Your task to perform on an android device: Search for sushi restaurants on Maps Image 0: 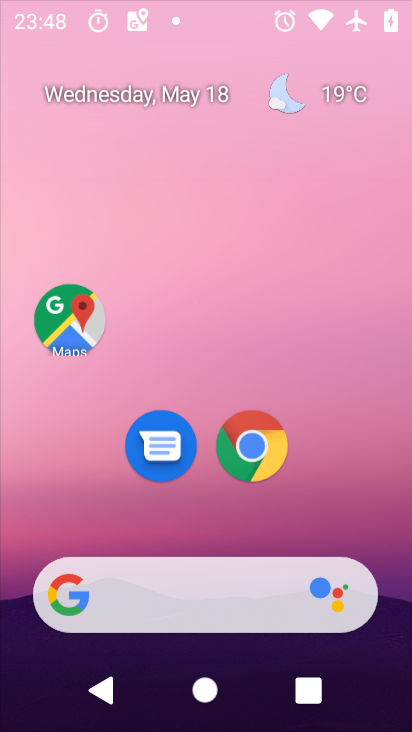
Step 0: press home button
Your task to perform on an android device: Search for sushi restaurants on Maps Image 1: 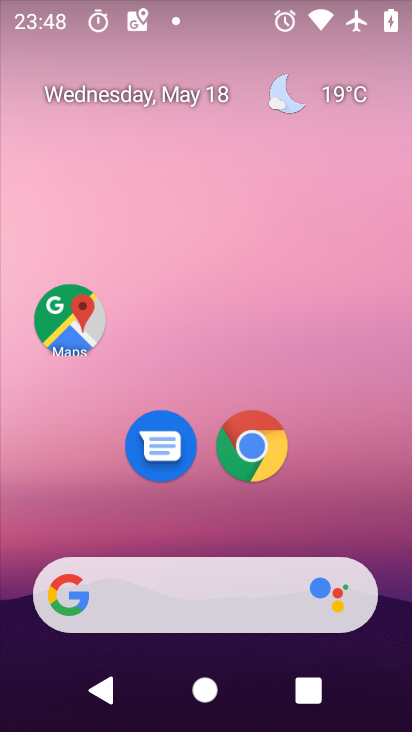
Step 1: click (82, 323)
Your task to perform on an android device: Search for sushi restaurants on Maps Image 2: 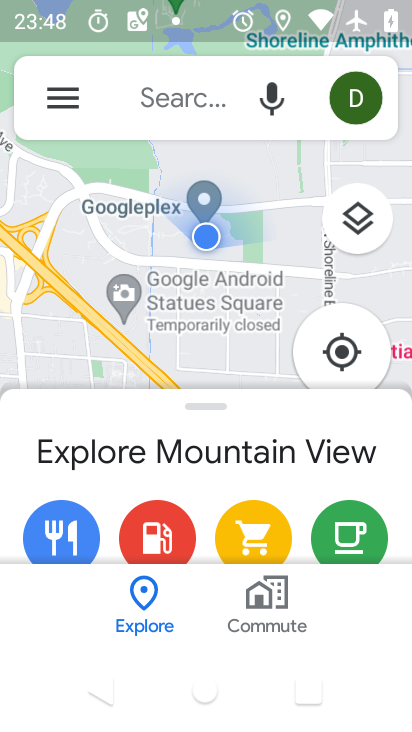
Step 2: click (187, 98)
Your task to perform on an android device: Search for sushi restaurants on Maps Image 3: 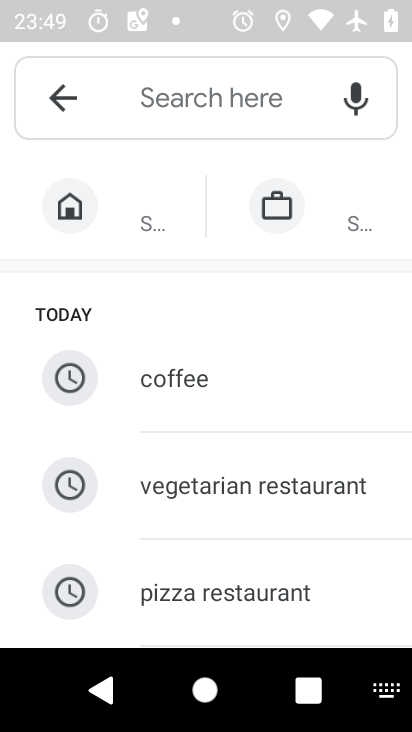
Step 3: drag from (198, 577) to (312, 281)
Your task to perform on an android device: Search for sushi restaurants on Maps Image 4: 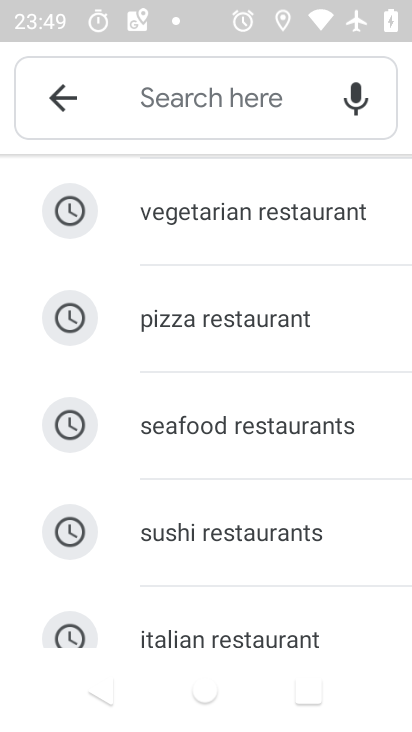
Step 4: click (194, 533)
Your task to perform on an android device: Search for sushi restaurants on Maps Image 5: 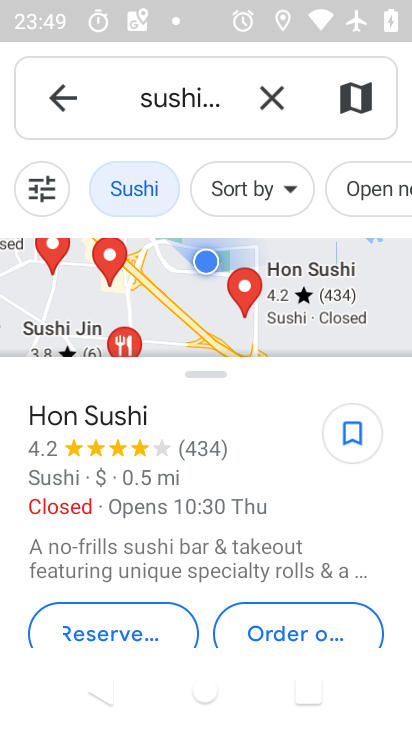
Step 5: task complete